Your task to perform on an android device: turn off wifi Image 0: 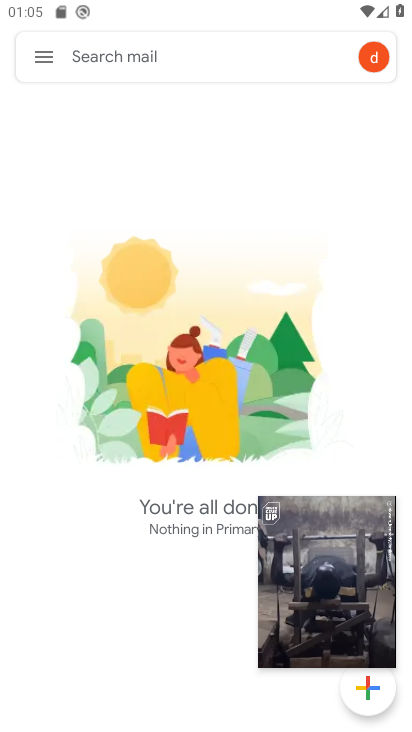
Step 0: press home button
Your task to perform on an android device: turn off wifi Image 1: 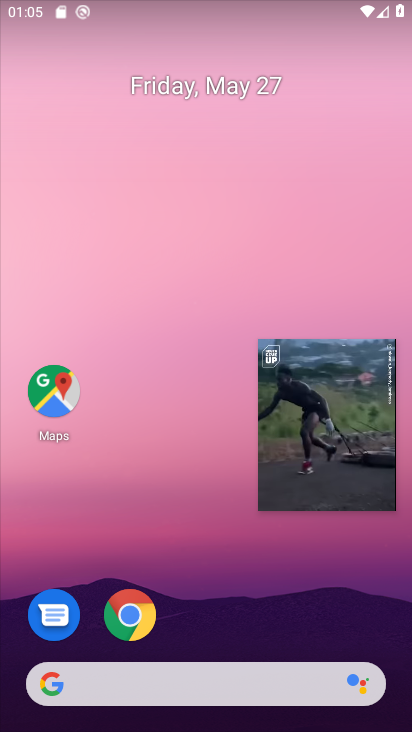
Step 1: drag from (229, 598) to (275, 230)
Your task to perform on an android device: turn off wifi Image 2: 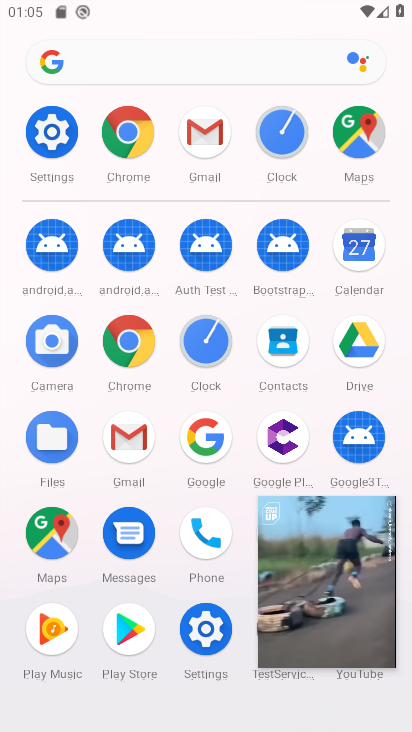
Step 2: click (63, 166)
Your task to perform on an android device: turn off wifi Image 3: 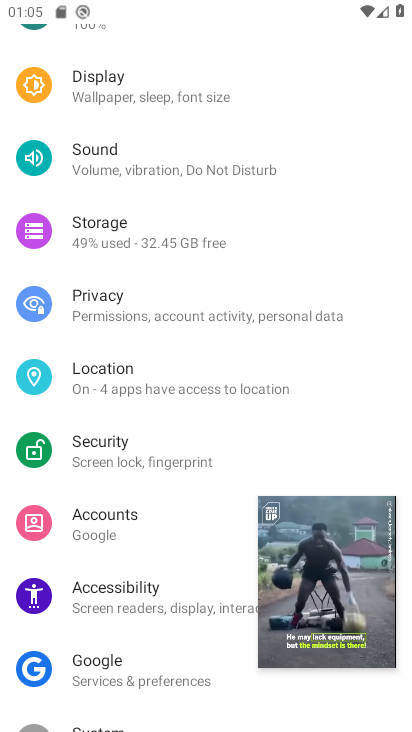
Step 3: drag from (291, 185) to (302, 264)
Your task to perform on an android device: turn off wifi Image 4: 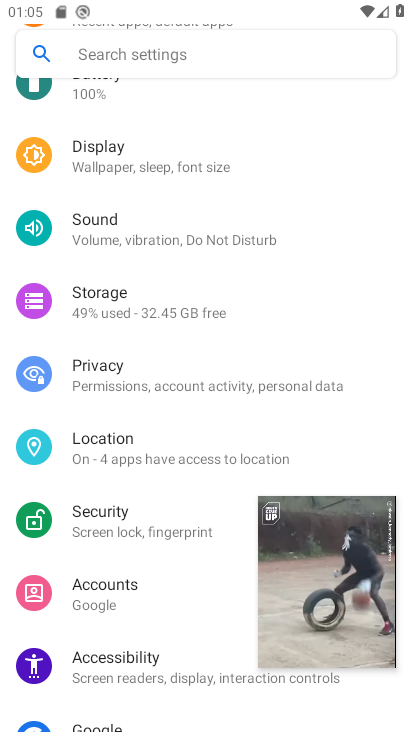
Step 4: drag from (307, 201) to (313, 268)
Your task to perform on an android device: turn off wifi Image 5: 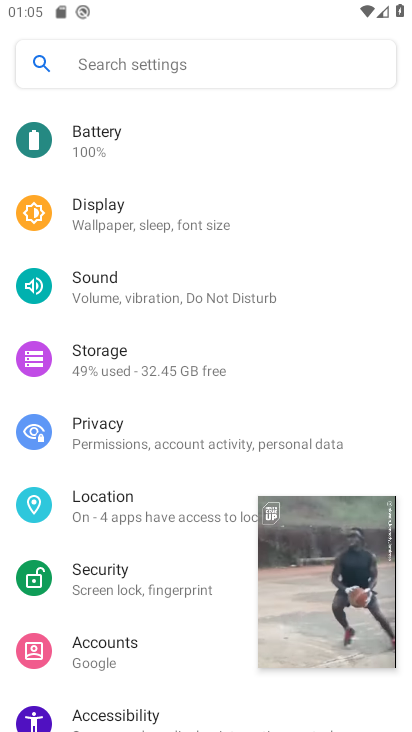
Step 5: drag from (313, 201) to (315, 278)
Your task to perform on an android device: turn off wifi Image 6: 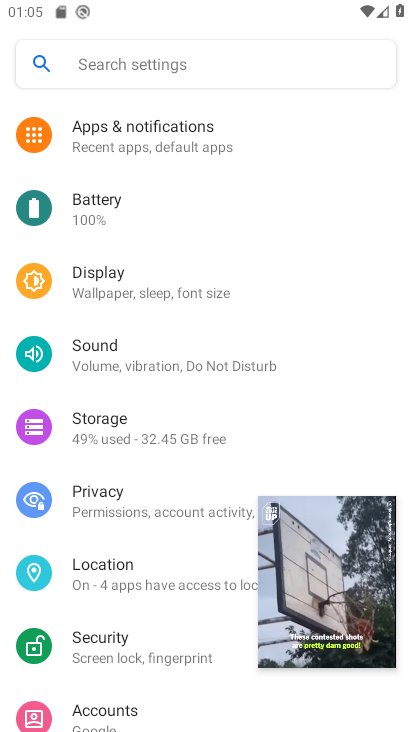
Step 6: drag from (321, 200) to (323, 269)
Your task to perform on an android device: turn off wifi Image 7: 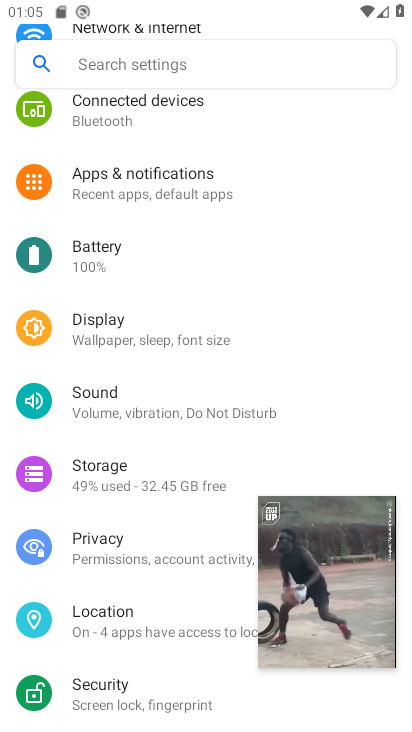
Step 7: drag from (324, 198) to (327, 281)
Your task to perform on an android device: turn off wifi Image 8: 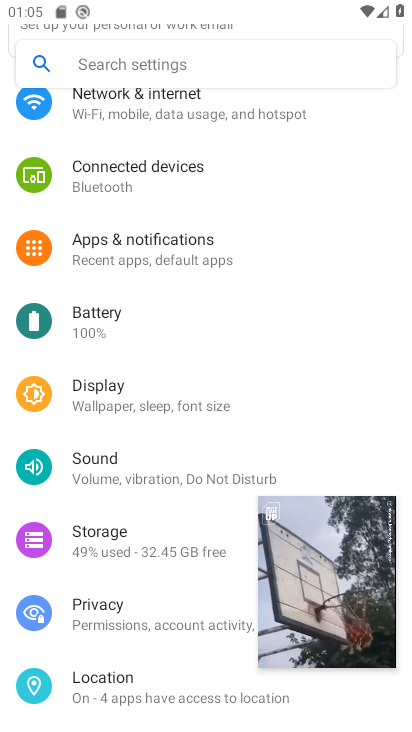
Step 8: drag from (328, 204) to (331, 284)
Your task to perform on an android device: turn off wifi Image 9: 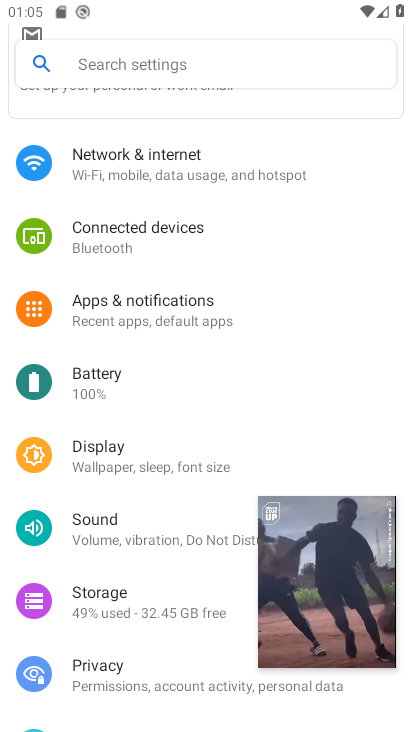
Step 9: drag from (331, 211) to (333, 285)
Your task to perform on an android device: turn off wifi Image 10: 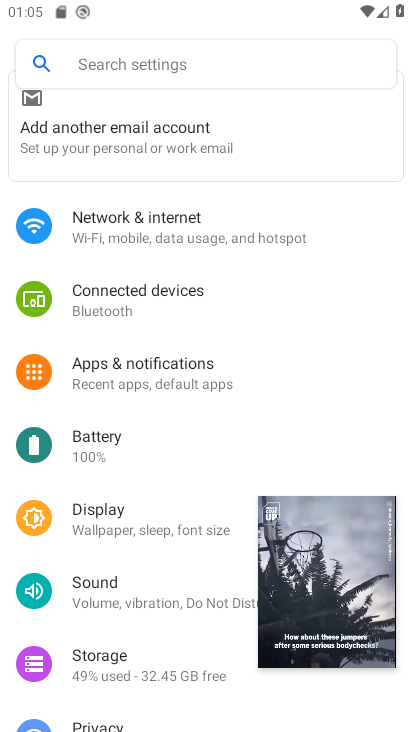
Step 10: drag from (334, 227) to (336, 334)
Your task to perform on an android device: turn off wifi Image 11: 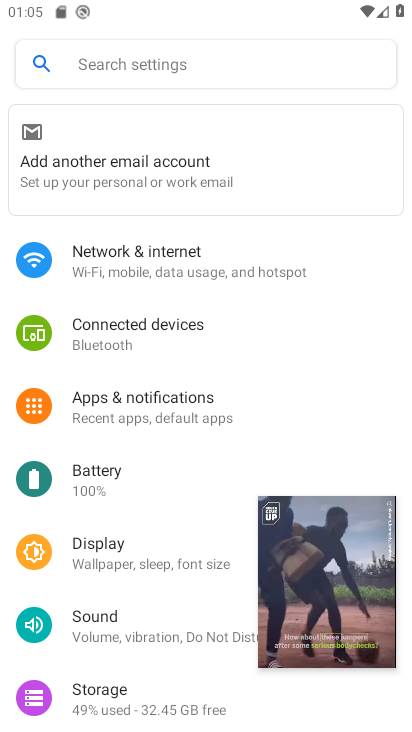
Step 11: click (234, 279)
Your task to perform on an android device: turn off wifi Image 12: 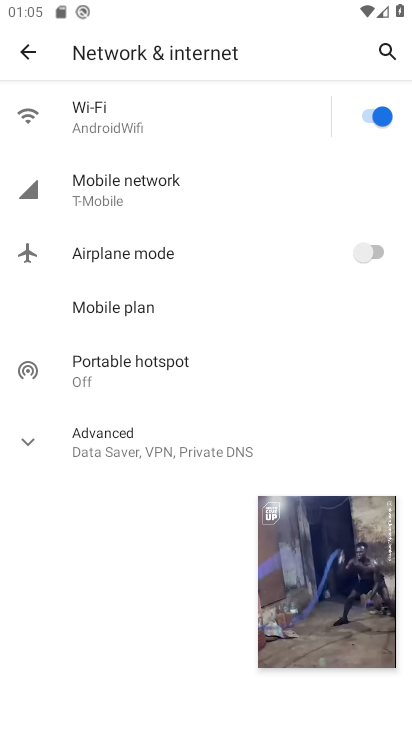
Step 12: click (382, 129)
Your task to perform on an android device: turn off wifi Image 13: 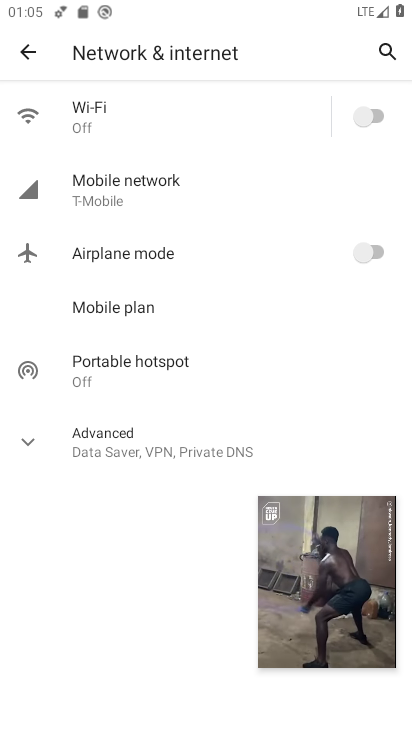
Step 13: task complete